Your task to perform on an android device: Turn off the flashlight Image 0: 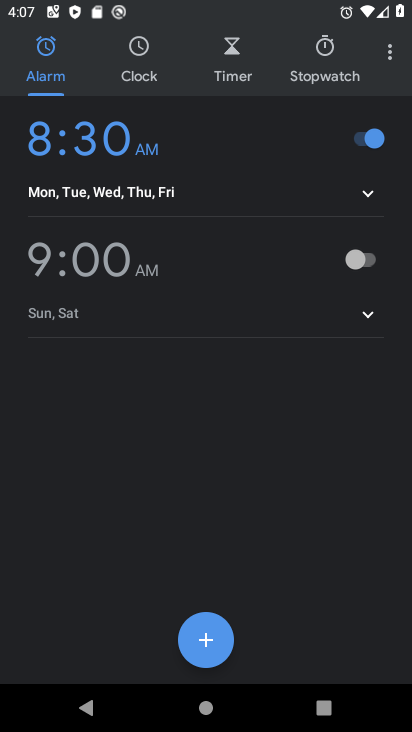
Step 0: drag from (188, 8) to (230, 379)
Your task to perform on an android device: Turn off the flashlight Image 1: 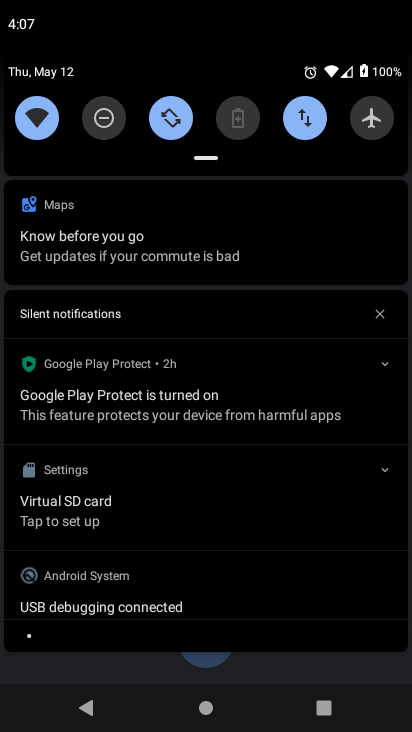
Step 1: drag from (177, 141) to (222, 455)
Your task to perform on an android device: Turn off the flashlight Image 2: 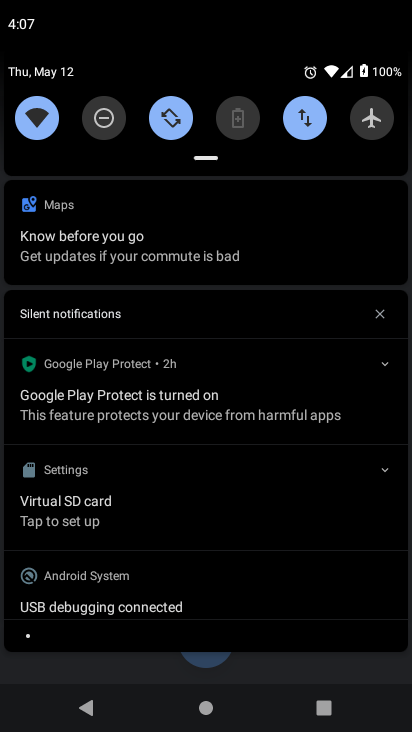
Step 2: drag from (280, 122) to (315, 395)
Your task to perform on an android device: Turn off the flashlight Image 3: 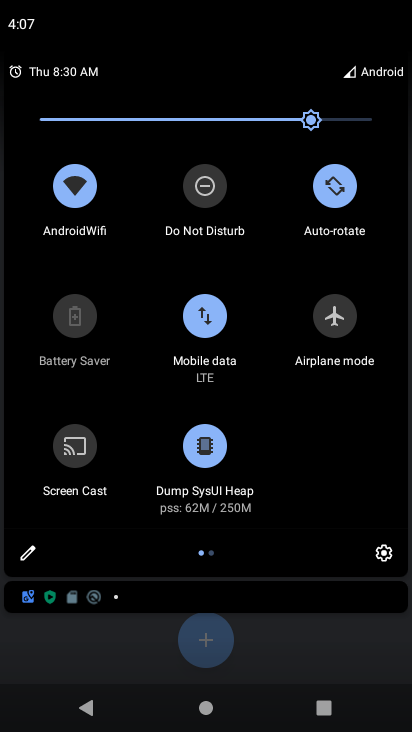
Step 3: drag from (367, 388) to (53, 406)
Your task to perform on an android device: Turn off the flashlight Image 4: 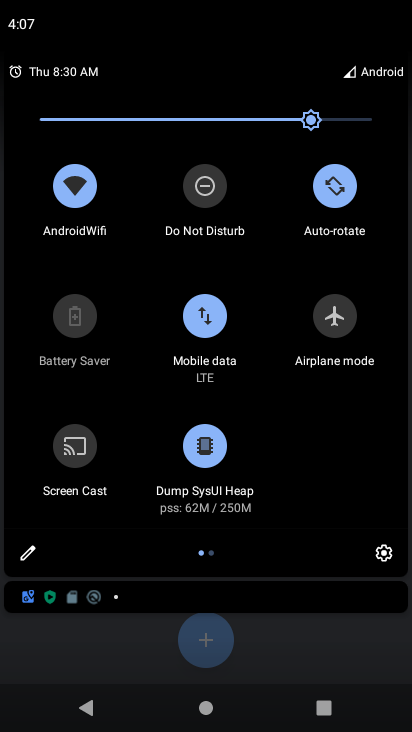
Step 4: drag from (340, 462) to (23, 470)
Your task to perform on an android device: Turn off the flashlight Image 5: 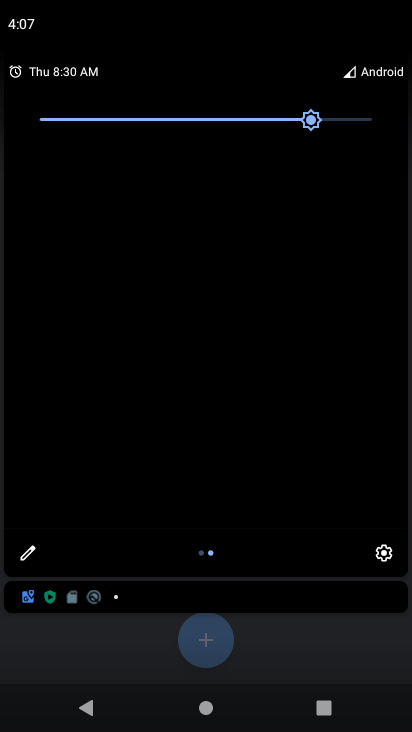
Step 5: click (36, 557)
Your task to perform on an android device: Turn off the flashlight Image 6: 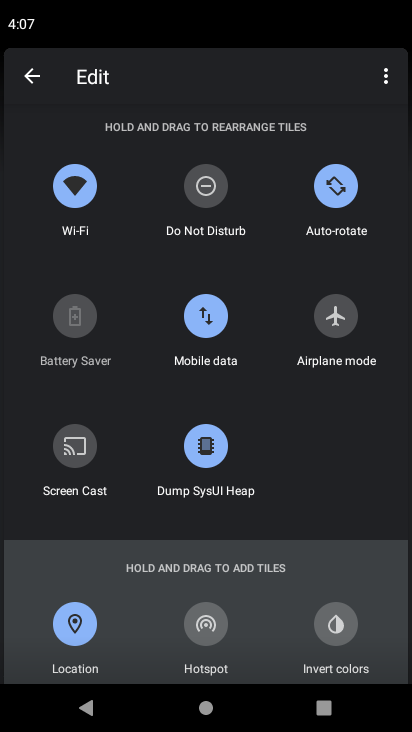
Step 6: task complete